Your task to perform on an android device: Show me recent news Image 0: 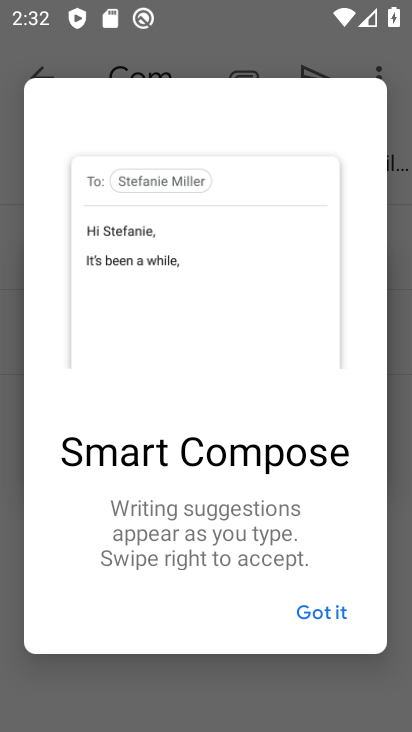
Step 0: press home button
Your task to perform on an android device: Show me recent news Image 1: 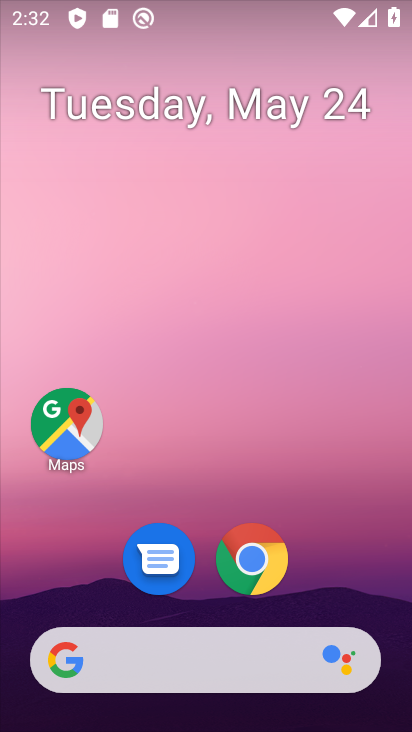
Step 1: task complete